Your task to perform on an android device: open wifi settings Image 0: 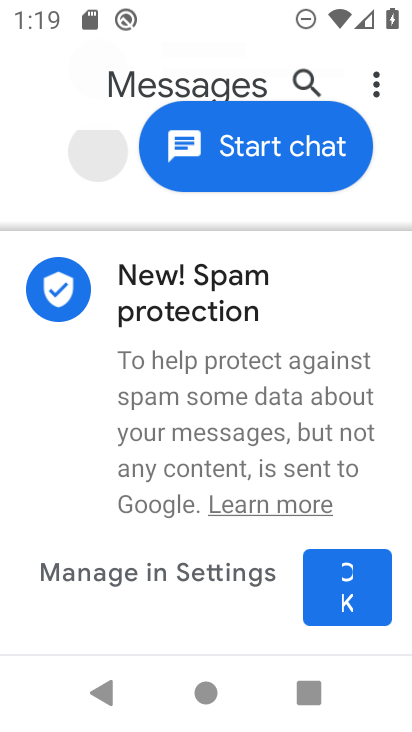
Step 0: press home button
Your task to perform on an android device: open wifi settings Image 1: 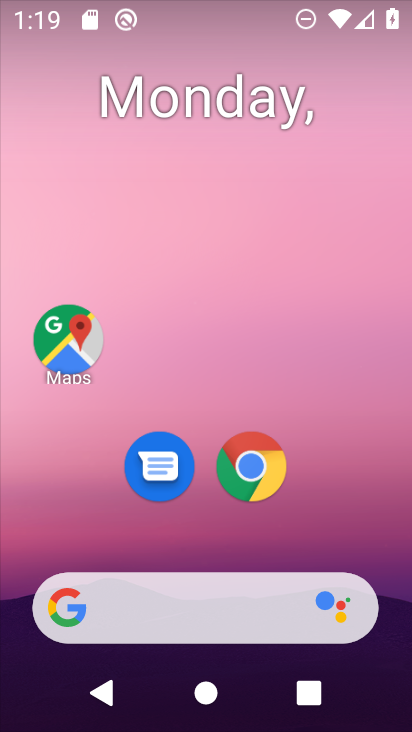
Step 1: drag from (211, 551) to (168, 20)
Your task to perform on an android device: open wifi settings Image 2: 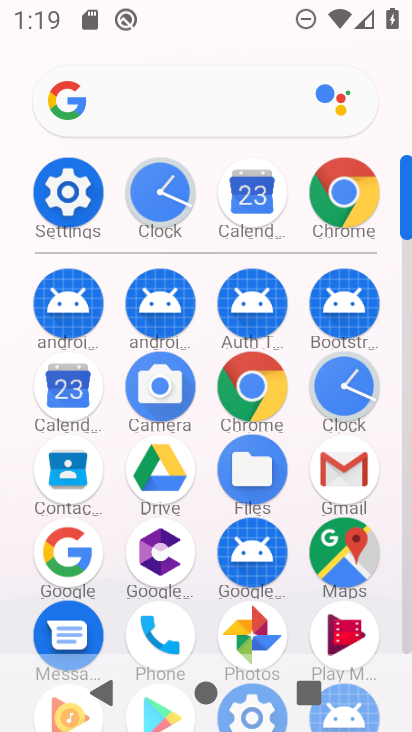
Step 2: click (88, 196)
Your task to perform on an android device: open wifi settings Image 3: 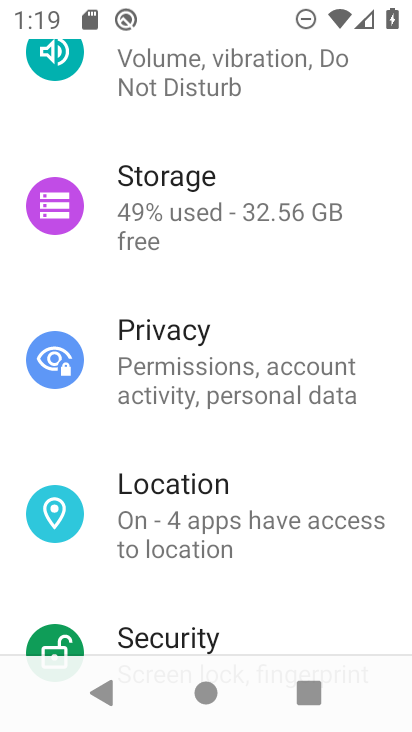
Step 3: drag from (263, 271) to (258, 561)
Your task to perform on an android device: open wifi settings Image 4: 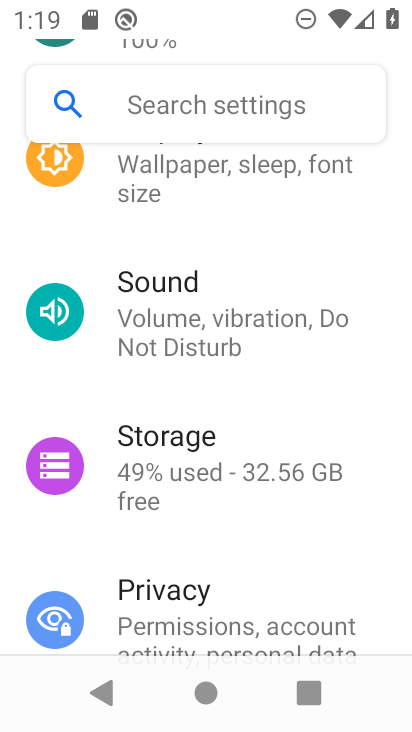
Step 4: drag from (233, 216) to (241, 729)
Your task to perform on an android device: open wifi settings Image 5: 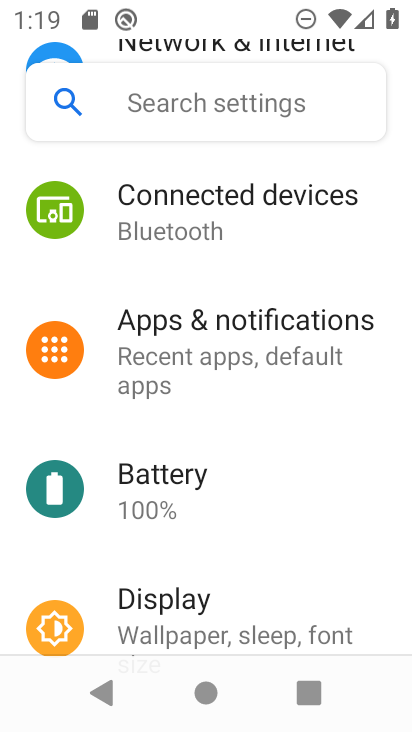
Step 5: drag from (250, 278) to (265, 532)
Your task to perform on an android device: open wifi settings Image 6: 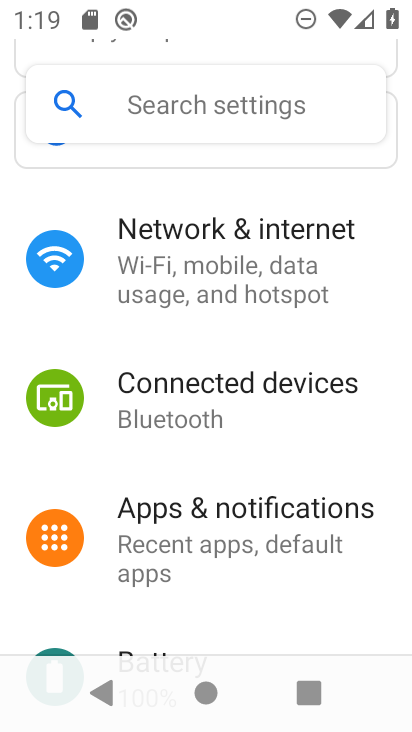
Step 6: click (246, 262)
Your task to perform on an android device: open wifi settings Image 7: 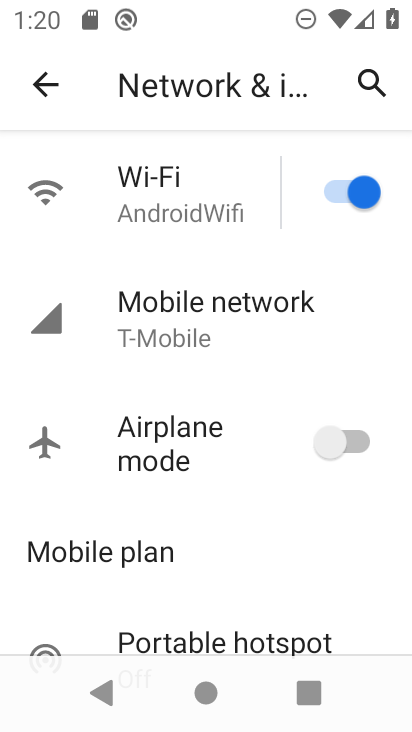
Step 7: click (178, 215)
Your task to perform on an android device: open wifi settings Image 8: 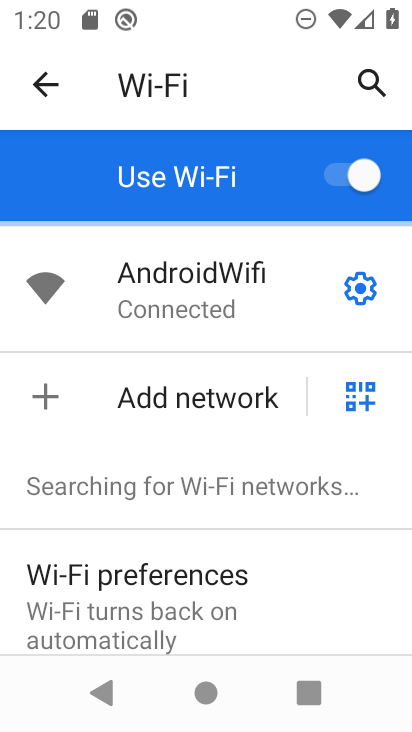
Step 8: task complete